Your task to perform on an android device: Open privacy settings Image 0: 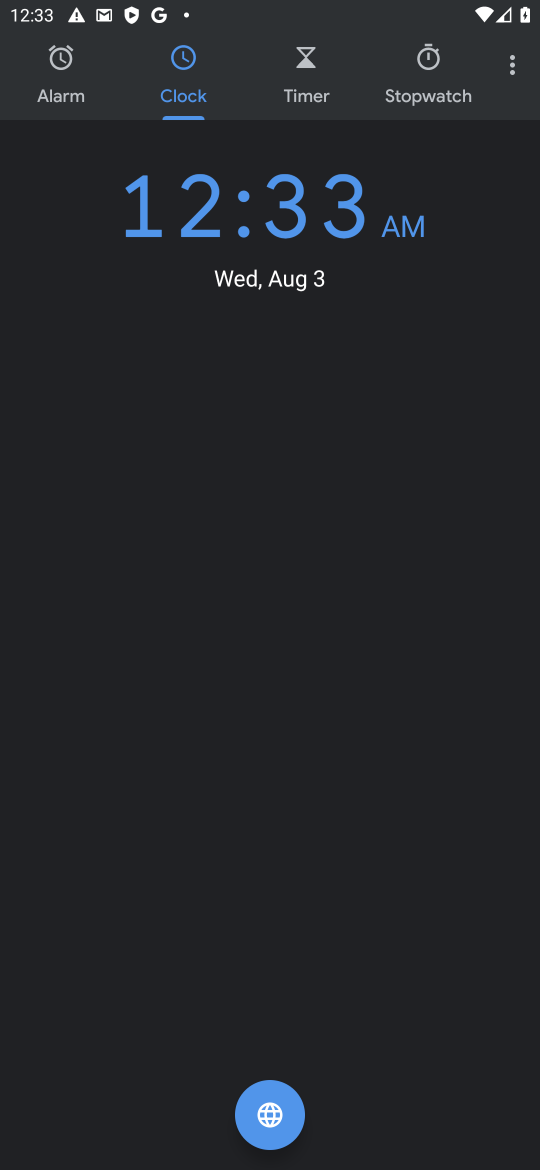
Step 0: task complete